Your task to perform on an android device: View the shopping cart on costco. Search for "jbl flip 4" on costco, select the first entry, add it to the cart, then select checkout. Image 0: 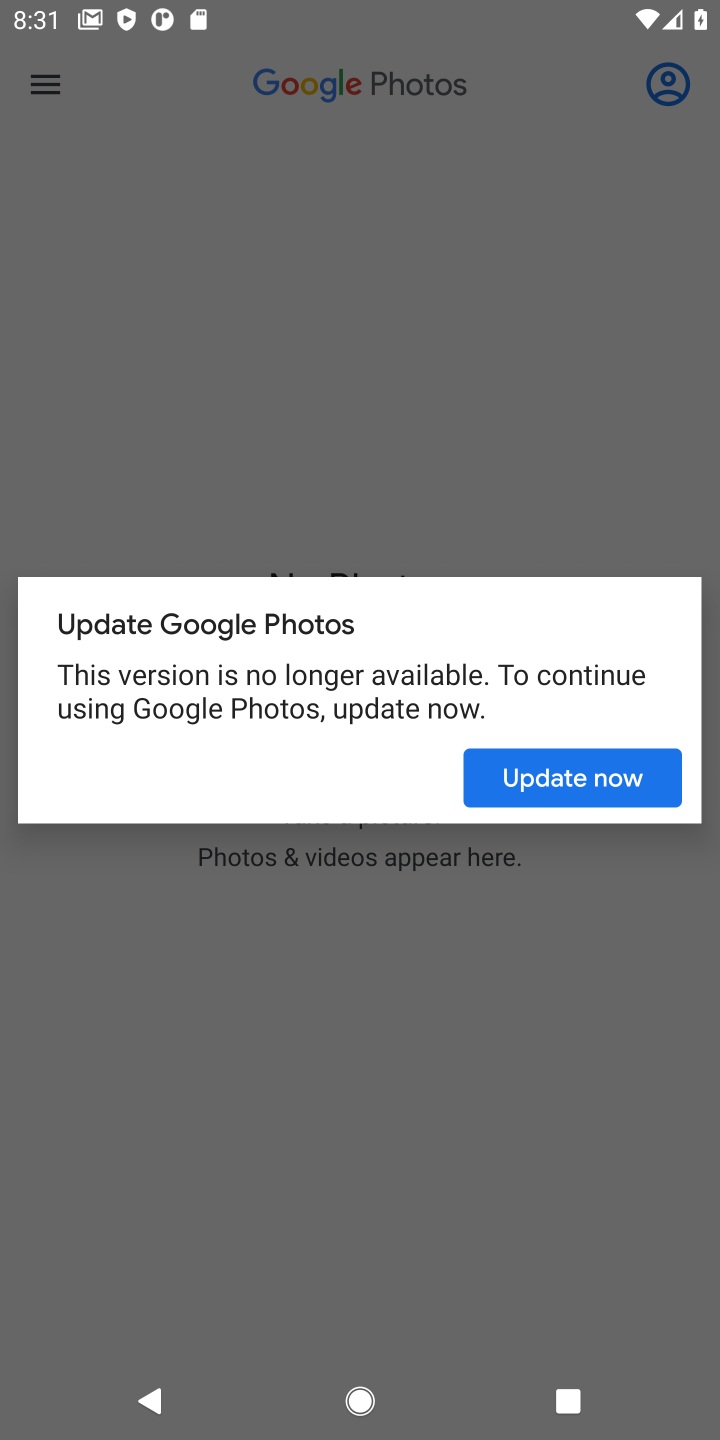
Step 0: press home button
Your task to perform on an android device: View the shopping cart on costco. Search for "jbl flip 4" on costco, select the first entry, add it to the cart, then select checkout. Image 1: 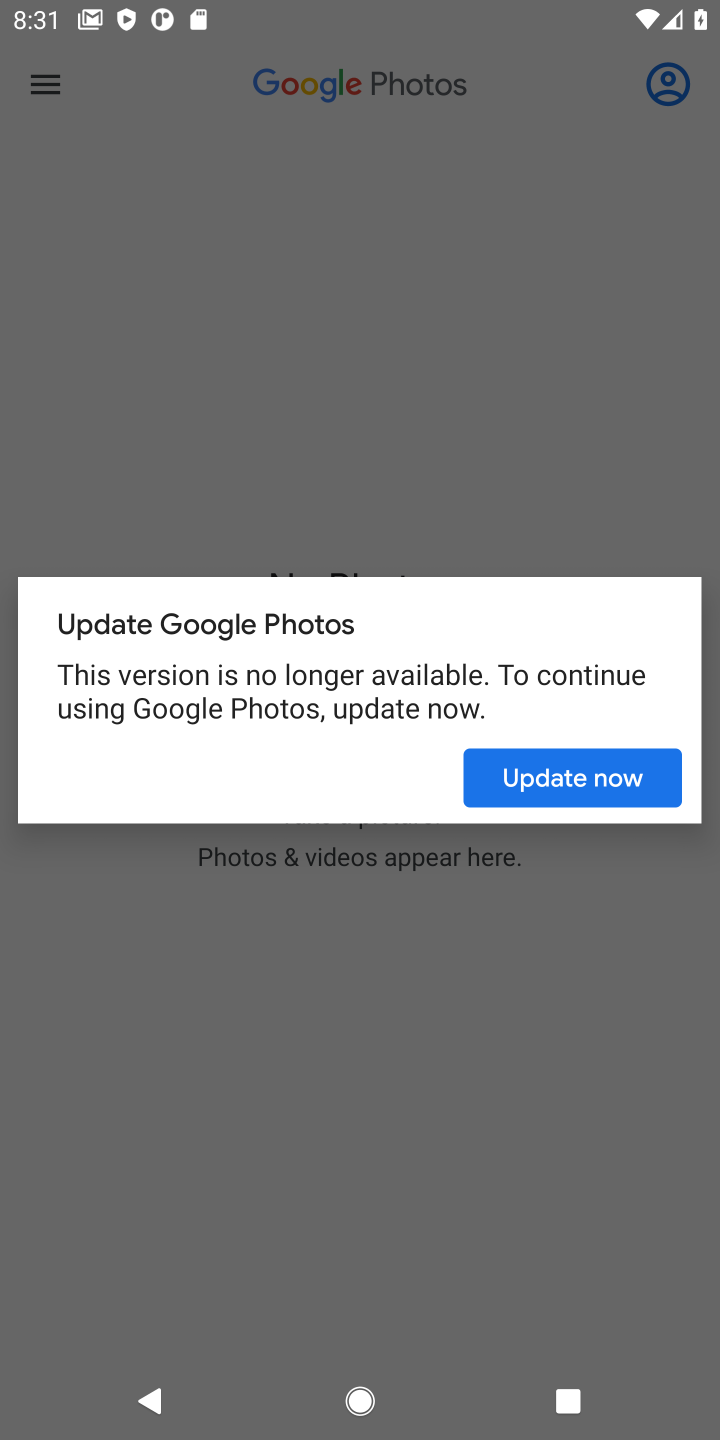
Step 1: press home button
Your task to perform on an android device: View the shopping cart on costco. Search for "jbl flip 4" on costco, select the first entry, add it to the cart, then select checkout. Image 2: 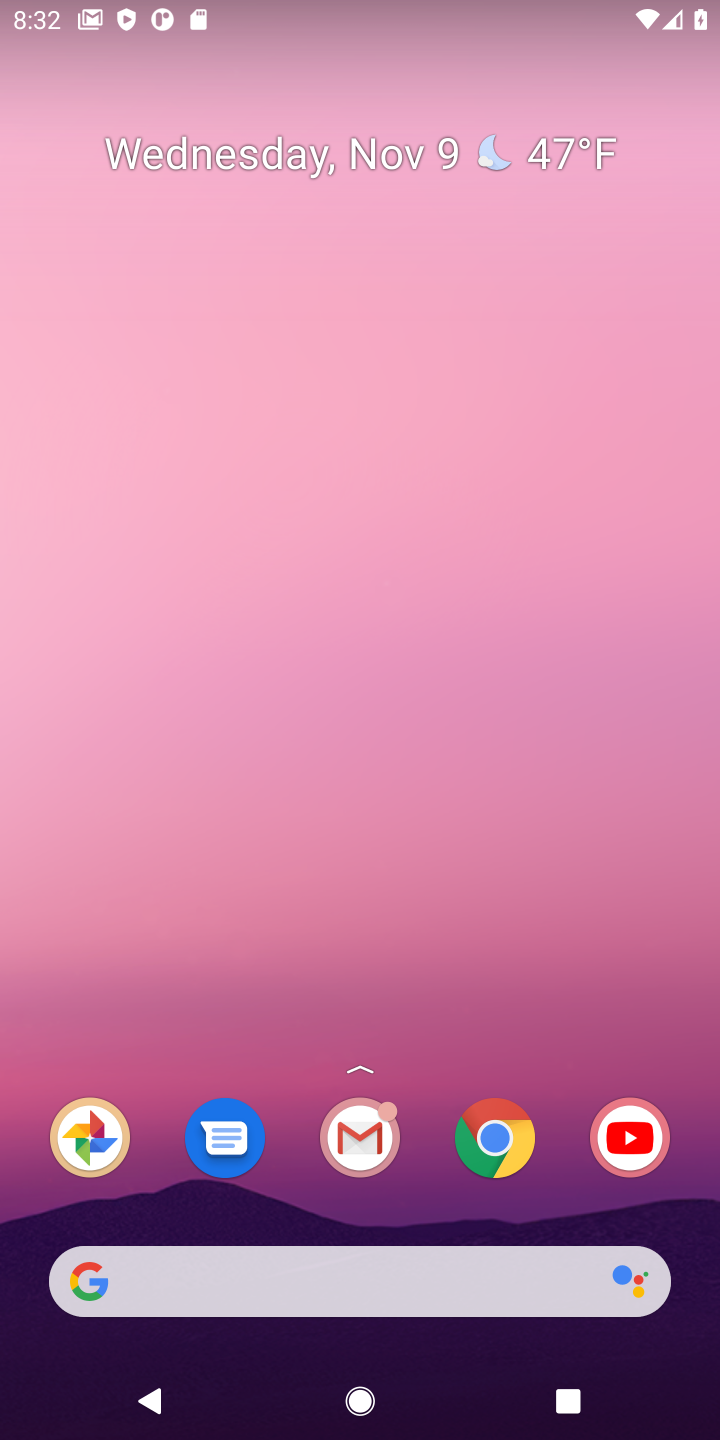
Step 2: drag from (428, 1221) to (471, 23)
Your task to perform on an android device: View the shopping cart on costco. Search for "jbl flip 4" on costco, select the first entry, add it to the cart, then select checkout. Image 3: 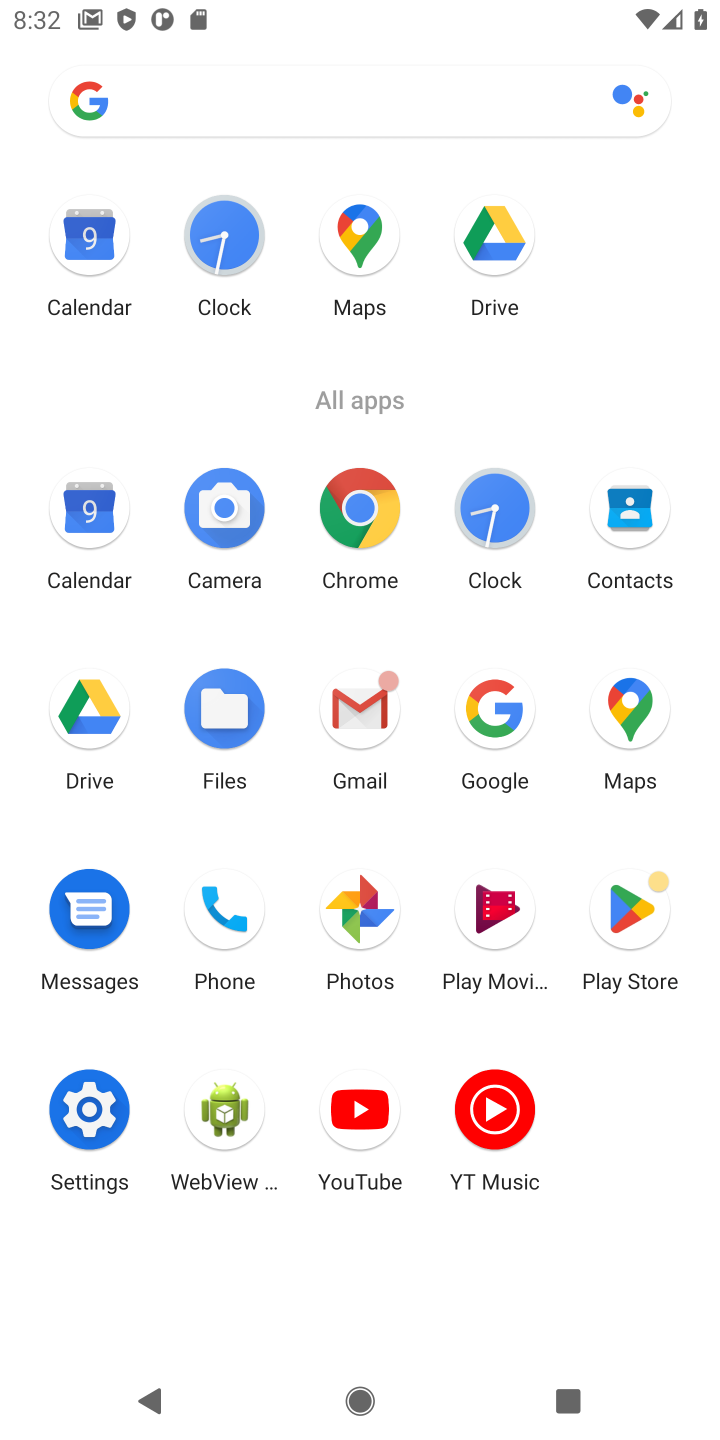
Step 3: click (364, 510)
Your task to perform on an android device: View the shopping cart on costco. Search for "jbl flip 4" on costco, select the first entry, add it to the cart, then select checkout. Image 4: 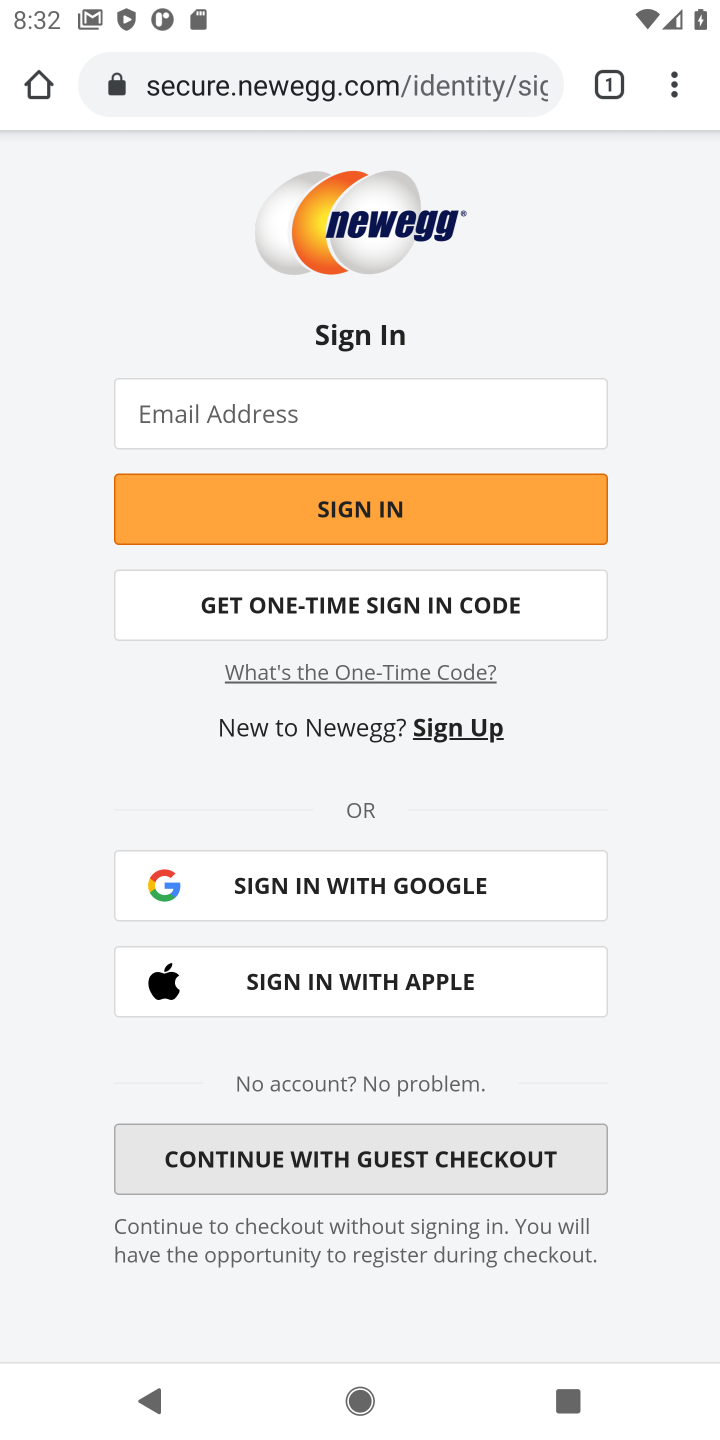
Step 4: click (381, 90)
Your task to perform on an android device: View the shopping cart on costco. Search for "jbl flip 4" on costco, select the first entry, add it to the cart, then select checkout. Image 5: 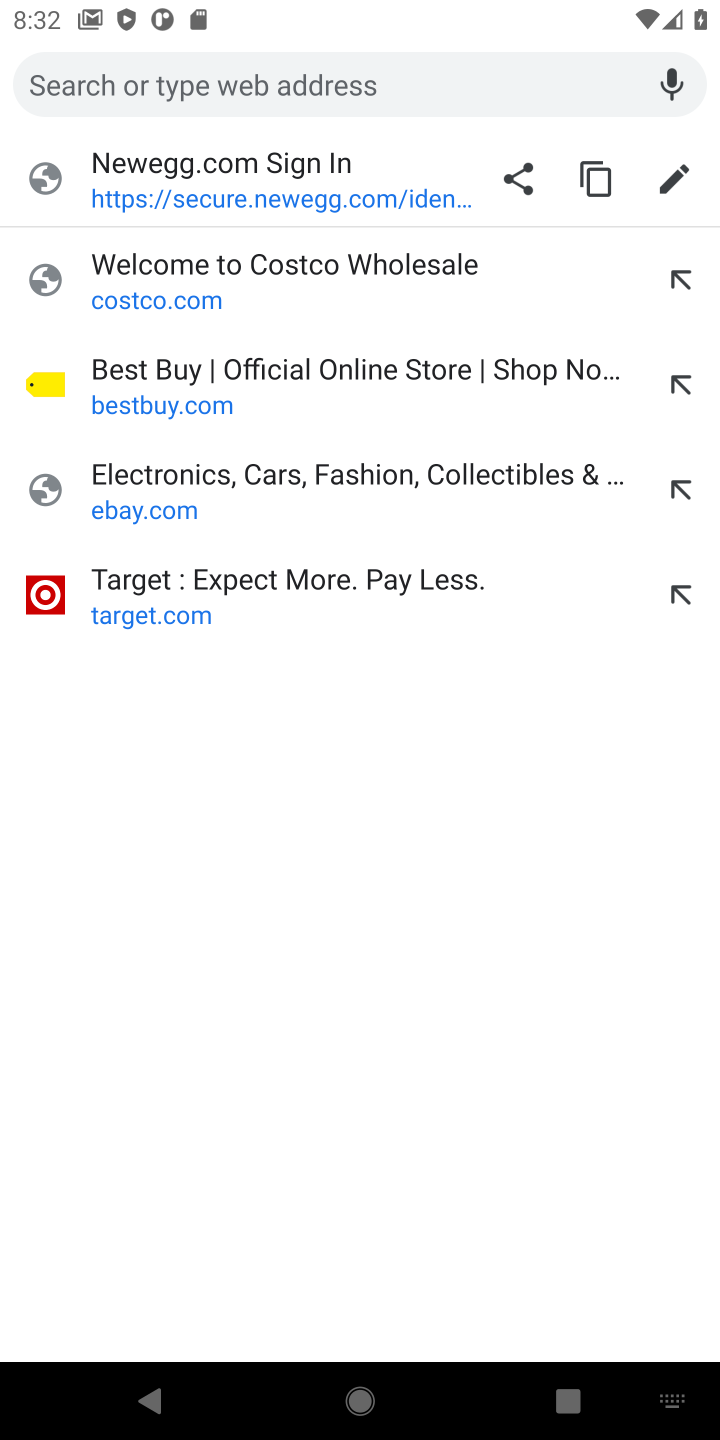
Step 5: type "costco.com"
Your task to perform on an android device: View the shopping cart on costco. Search for "jbl flip 4" on costco, select the first entry, add it to the cart, then select checkout. Image 6: 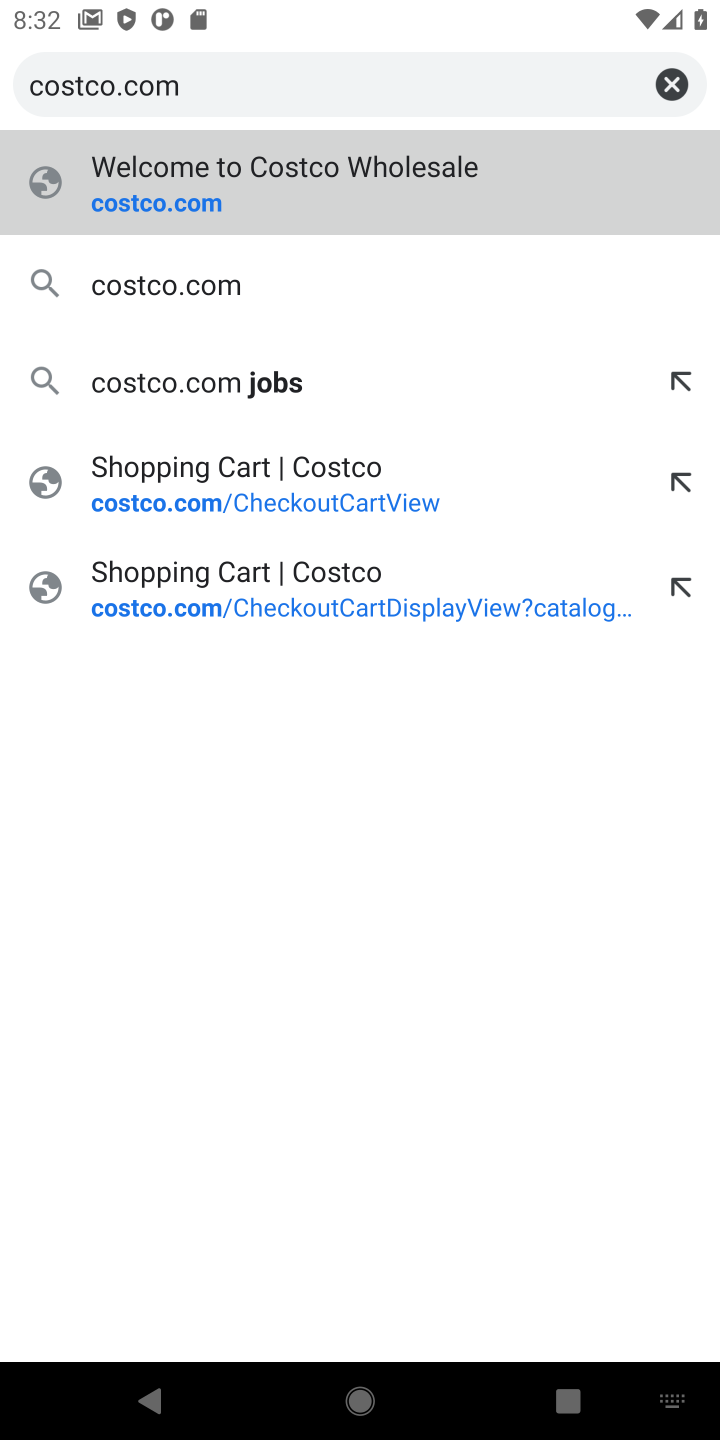
Step 6: press enter
Your task to perform on an android device: View the shopping cart on costco. Search for "jbl flip 4" on costco, select the first entry, add it to the cart, then select checkout. Image 7: 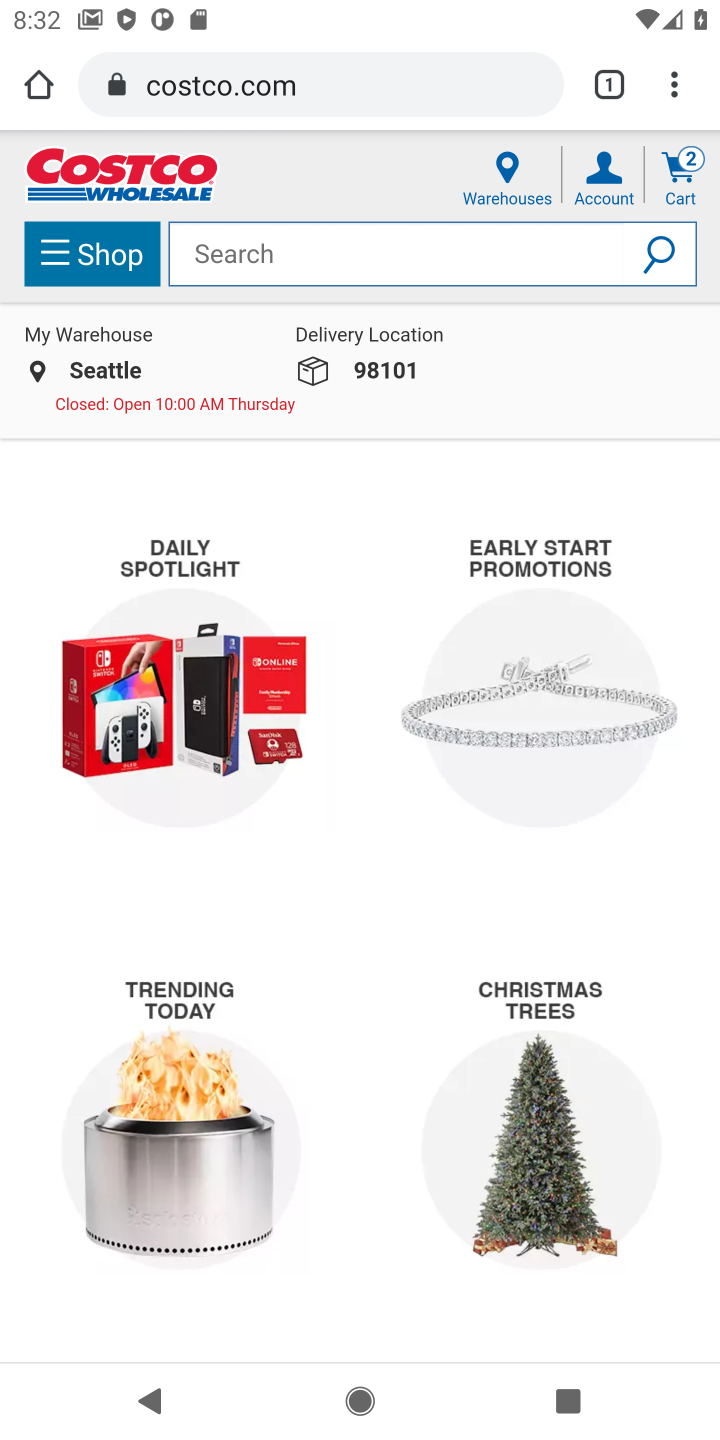
Step 7: click (686, 154)
Your task to perform on an android device: View the shopping cart on costco. Search for "jbl flip 4" on costco, select the first entry, add it to the cart, then select checkout. Image 8: 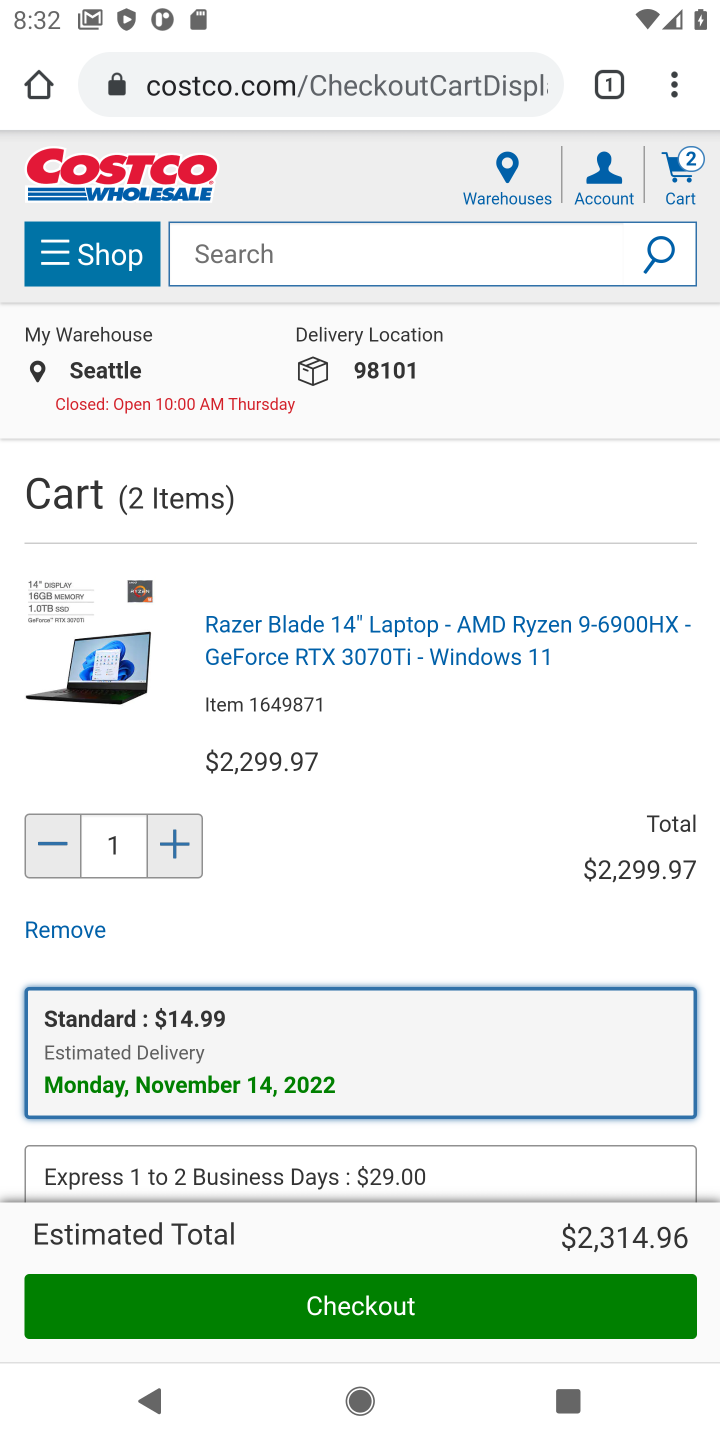
Step 8: click (372, 267)
Your task to perform on an android device: View the shopping cart on costco. Search for "jbl flip 4" on costco, select the first entry, add it to the cart, then select checkout. Image 9: 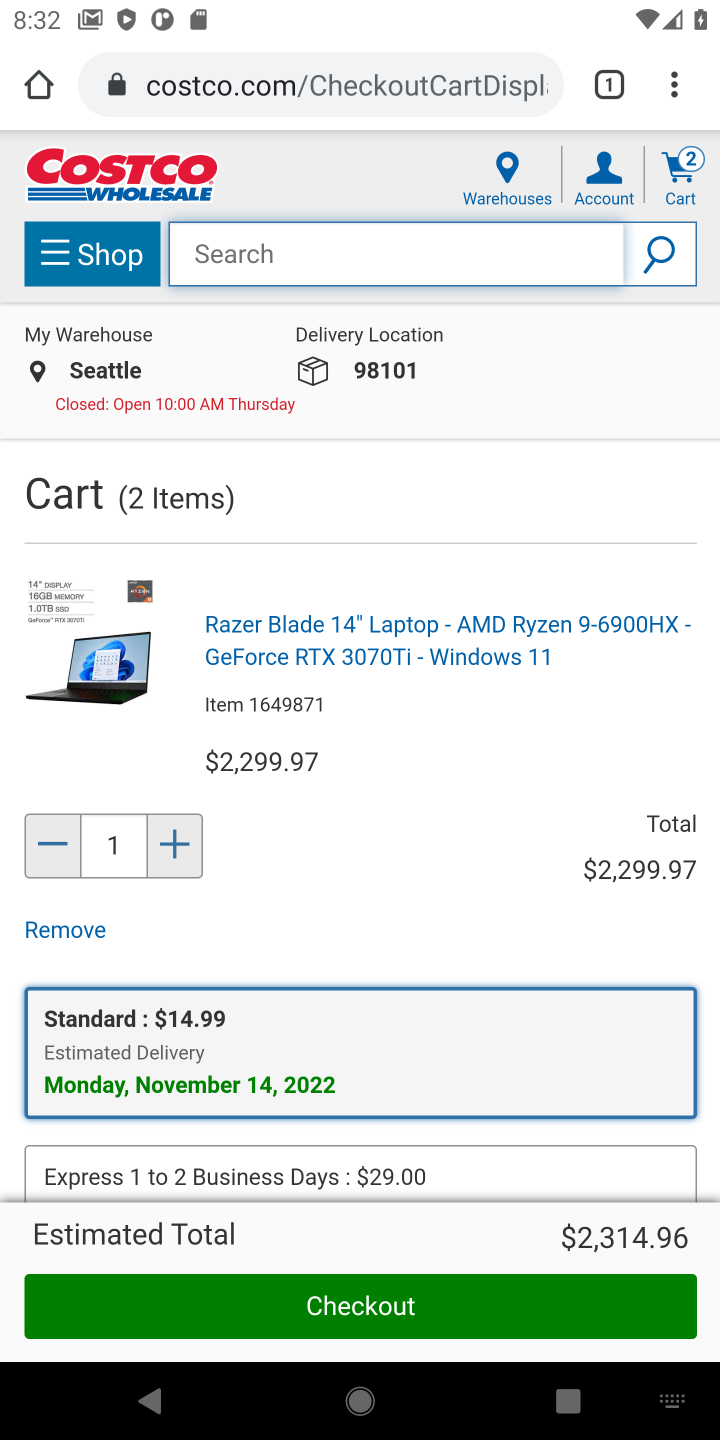
Step 9: type "jbl flip 4"
Your task to perform on an android device: View the shopping cart on costco. Search for "jbl flip 4" on costco, select the first entry, add it to the cart, then select checkout. Image 10: 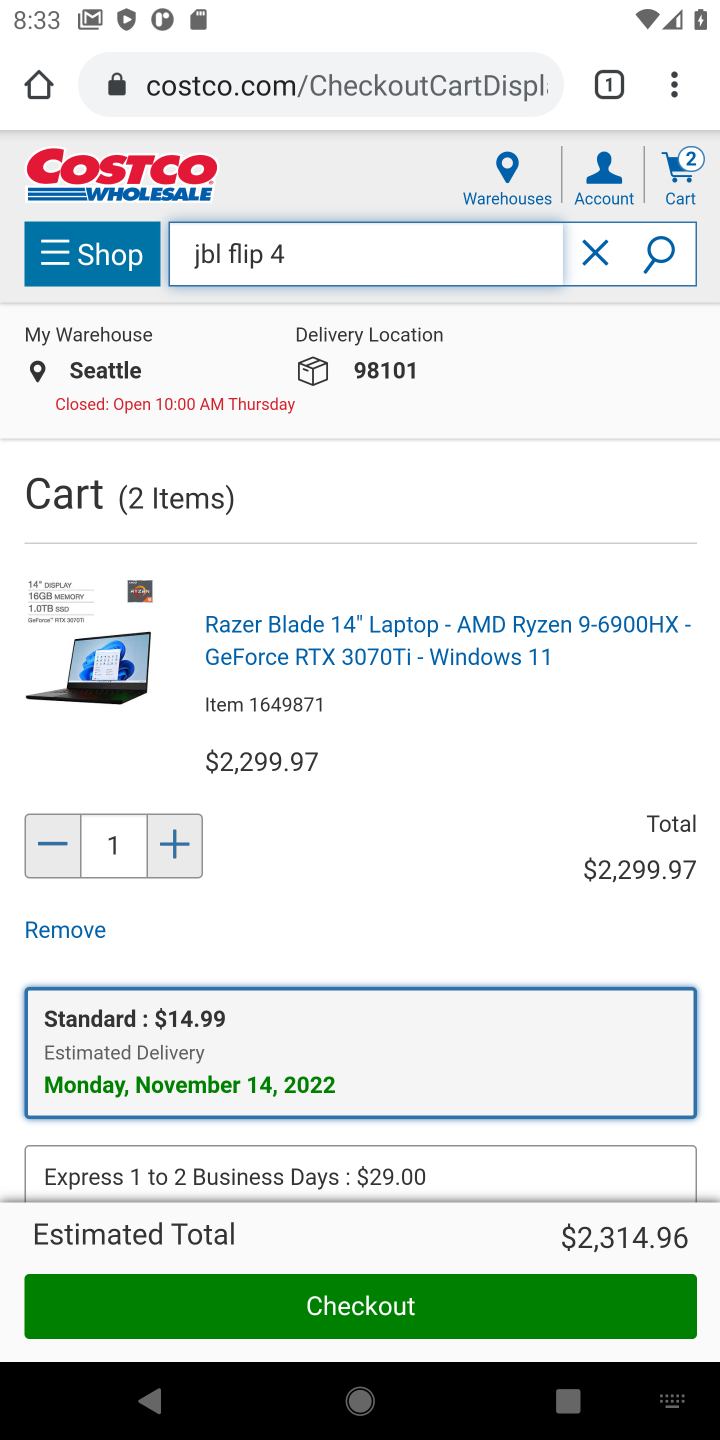
Step 10: press enter
Your task to perform on an android device: View the shopping cart on costco. Search for "jbl flip 4" on costco, select the first entry, add it to the cart, then select checkout. Image 11: 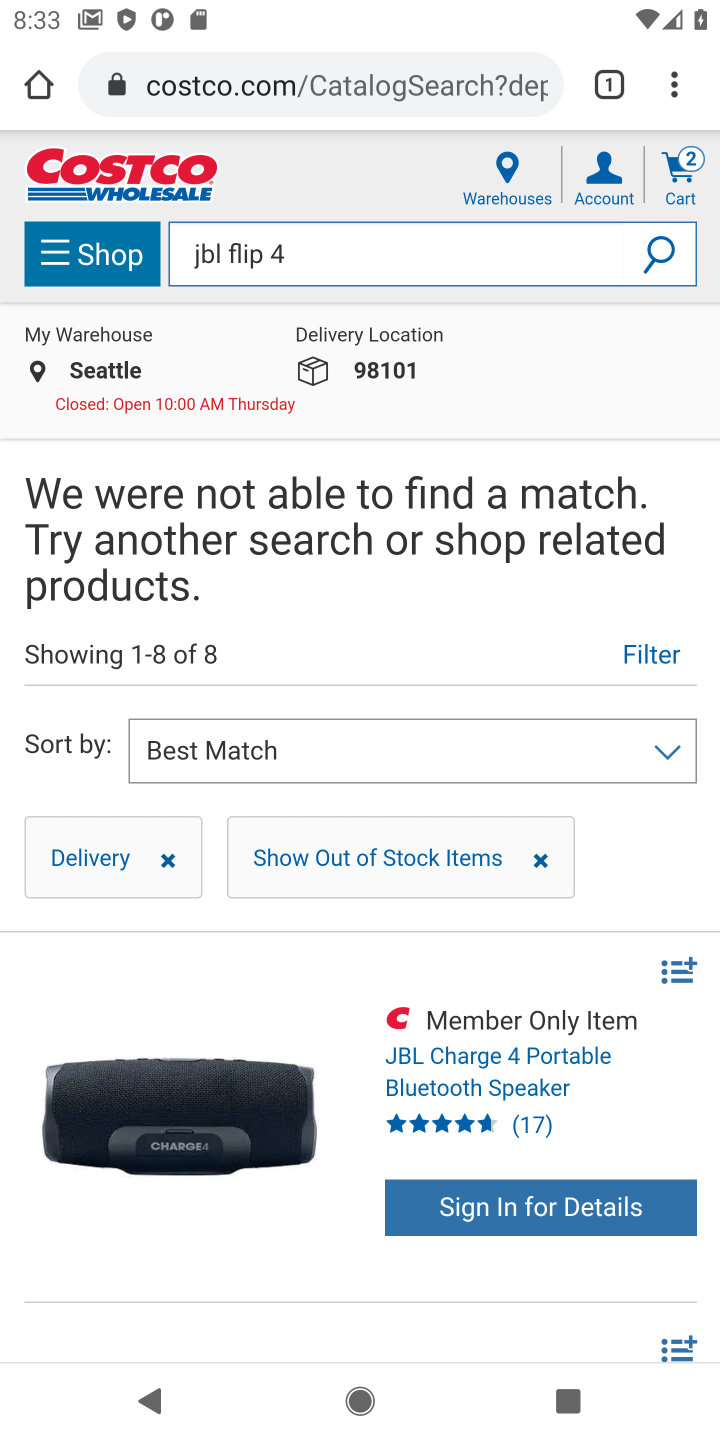
Step 11: task complete